Your task to perform on an android device: Set the phone to "Do not disturb". Image 0: 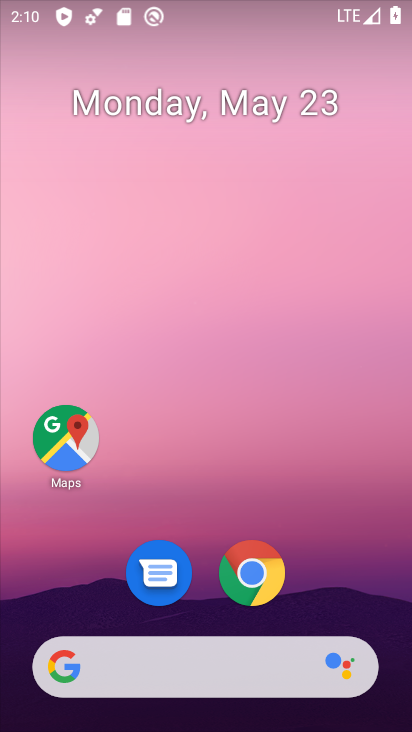
Step 0: drag from (203, 29) to (274, 423)
Your task to perform on an android device: Set the phone to "Do not disturb". Image 1: 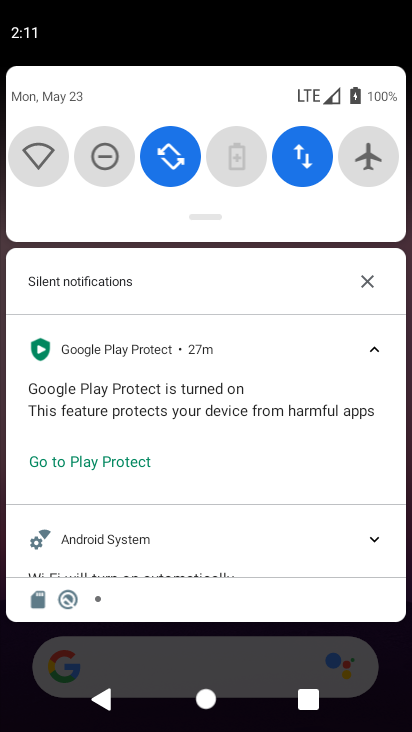
Step 1: click (86, 151)
Your task to perform on an android device: Set the phone to "Do not disturb". Image 2: 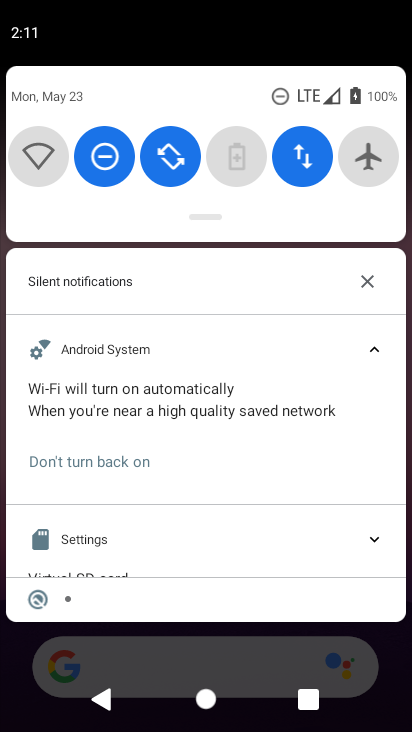
Step 2: task complete